Your task to perform on an android device: turn on notifications settings in the gmail app Image 0: 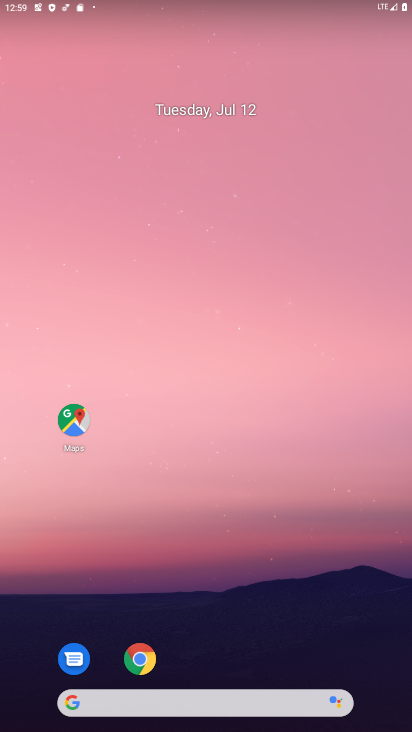
Step 0: drag from (229, 208) to (230, 82)
Your task to perform on an android device: turn on notifications settings in the gmail app Image 1: 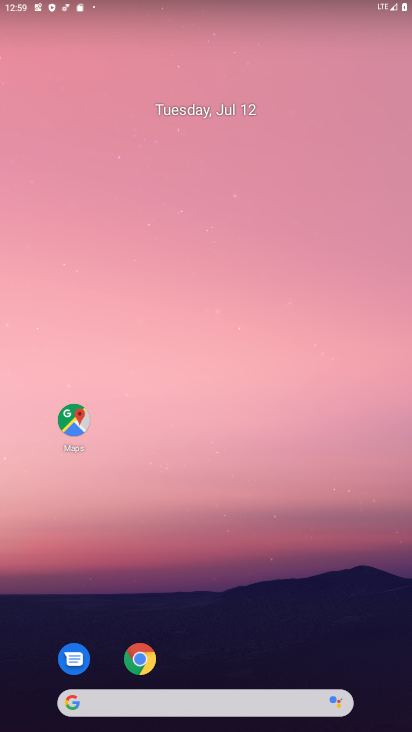
Step 1: drag from (259, 728) to (255, 613)
Your task to perform on an android device: turn on notifications settings in the gmail app Image 2: 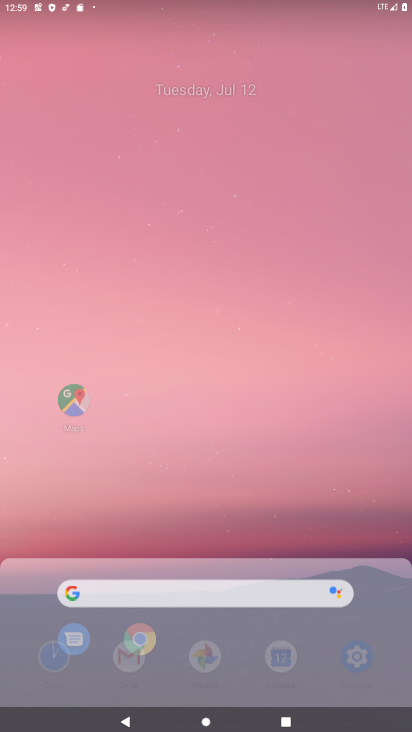
Step 2: drag from (243, 193) to (242, 1)
Your task to perform on an android device: turn on notifications settings in the gmail app Image 3: 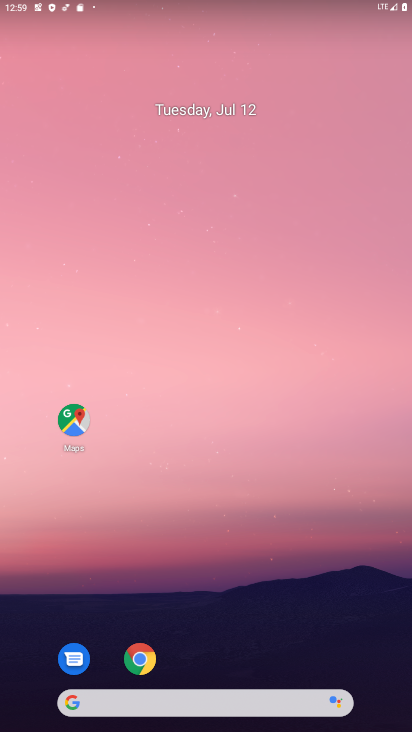
Step 3: drag from (237, 728) to (256, 159)
Your task to perform on an android device: turn on notifications settings in the gmail app Image 4: 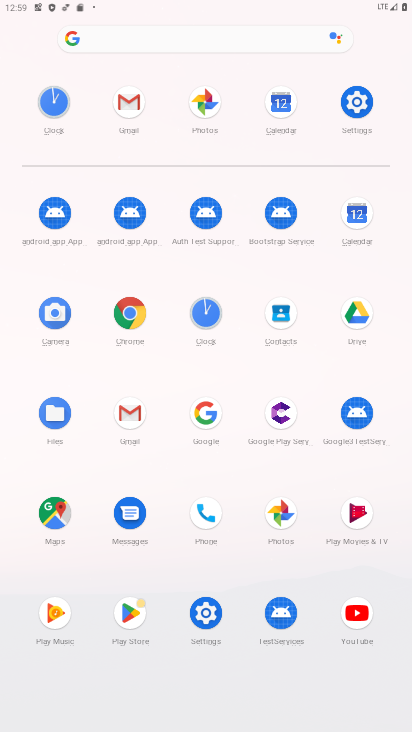
Step 4: click (132, 414)
Your task to perform on an android device: turn on notifications settings in the gmail app Image 5: 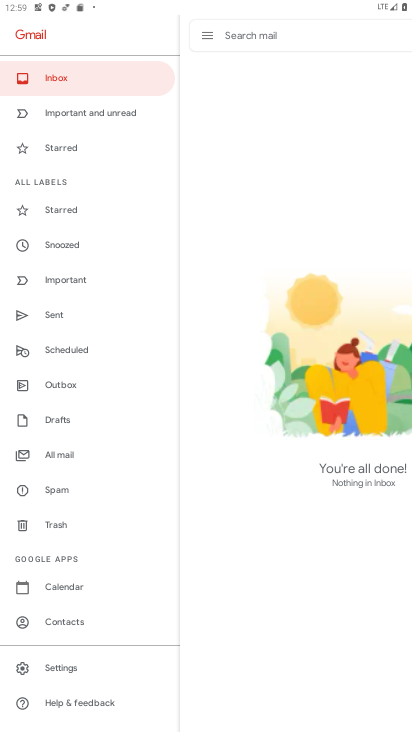
Step 5: click (59, 665)
Your task to perform on an android device: turn on notifications settings in the gmail app Image 6: 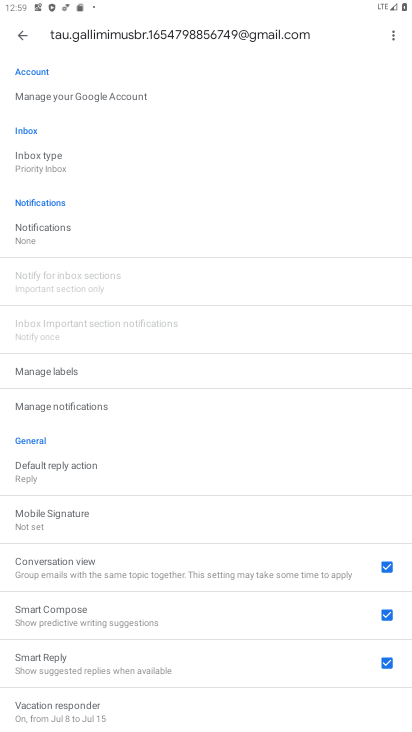
Step 6: click (38, 229)
Your task to perform on an android device: turn on notifications settings in the gmail app Image 7: 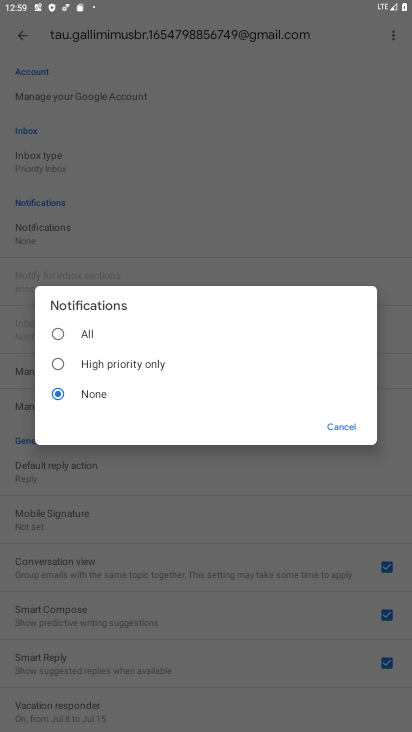
Step 7: click (54, 336)
Your task to perform on an android device: turn on notifications settings in the gmail app Image 8: 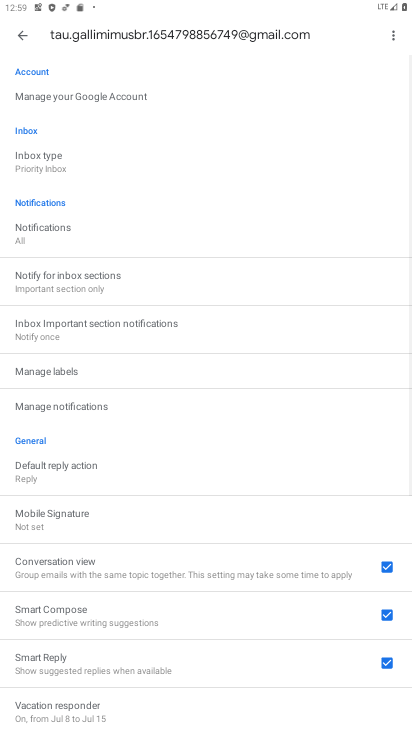
Step 8: task complete